Your task to perform on an android device: add a contact Image 0: 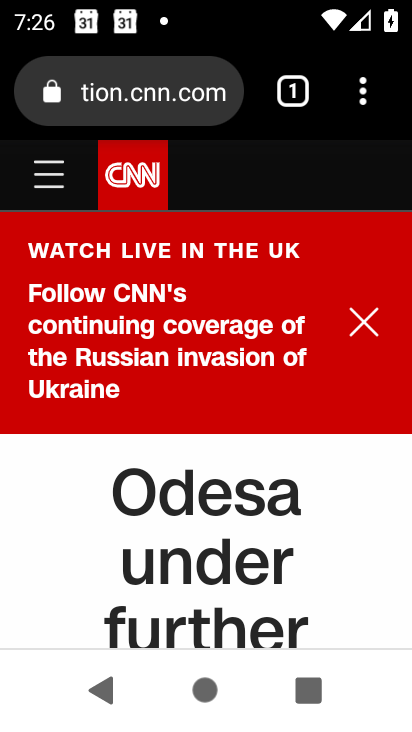
Step 0: press home button
Your task to perform on an android device: add a contact Image 1: 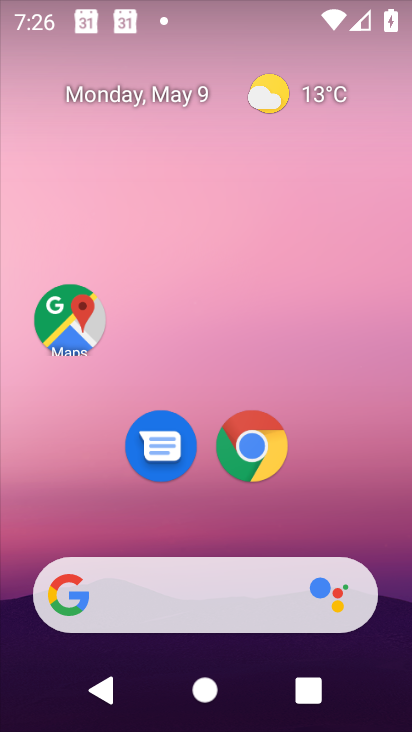
Step 1: drag from (247, 420) to (269, 137)
Your task to perform on an android device: add a contact Image 2: 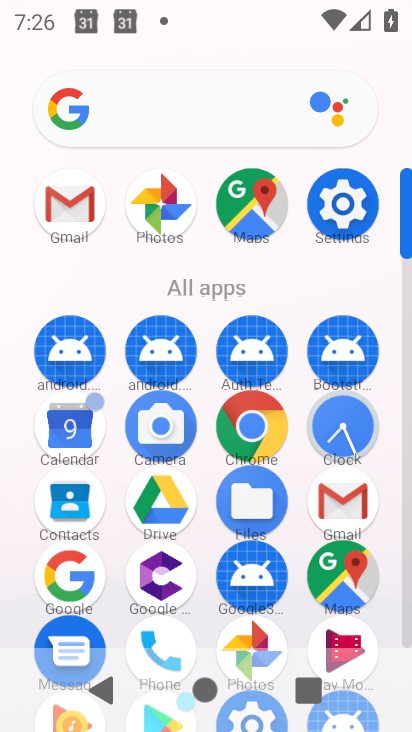
Step 2: click (150, 651)
Your task to perform on an android device: add a contact Image 3: 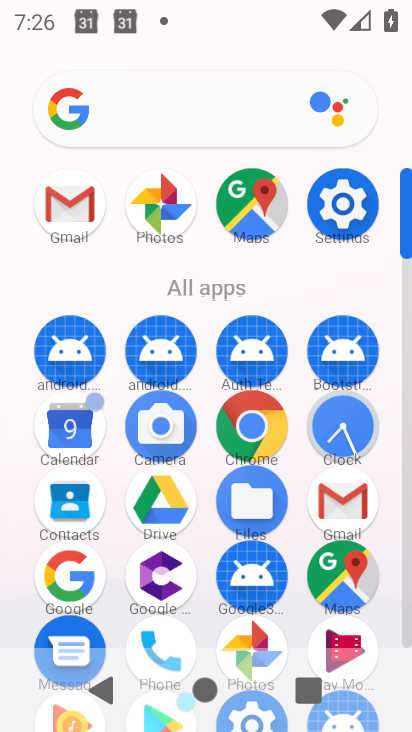
Step 3: click (65, 513)
Your task to perform on an android device: add a contact Image 4: 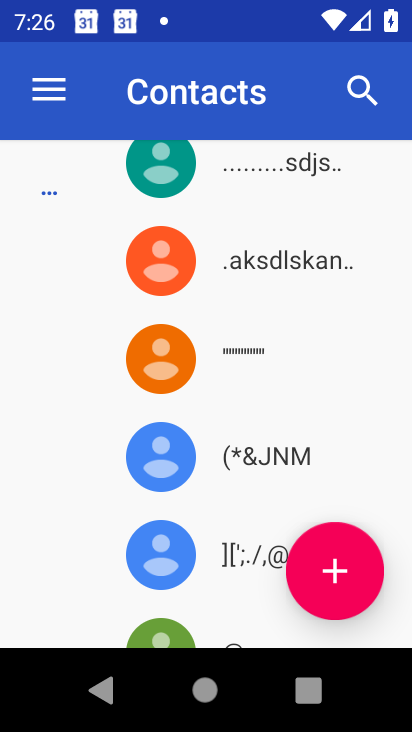
Step 4: click (344, 593)
Your task to perform on an android device: add a contact Image 5: 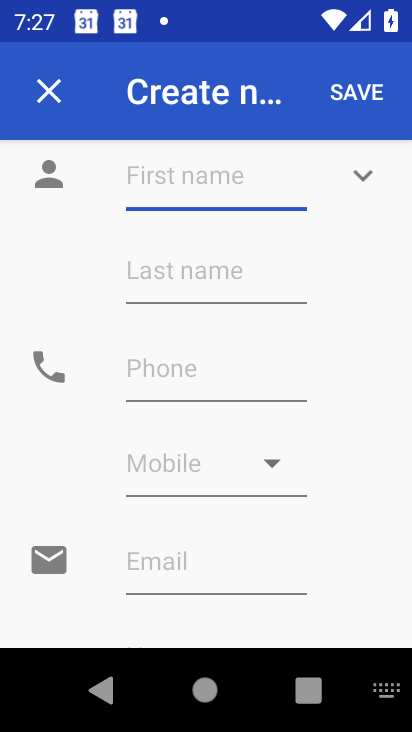
Step 5: type "contact 1"
Your task to perform on an android device: add a contact Image 6: 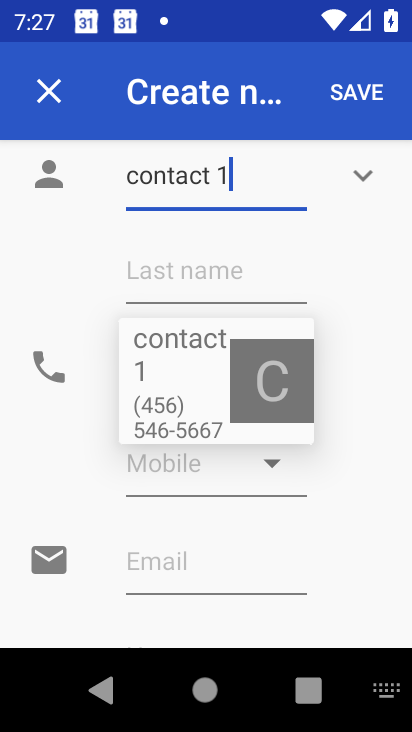
Step 6: type "2"
Your task to perform on an android device: add a contact Image 7: 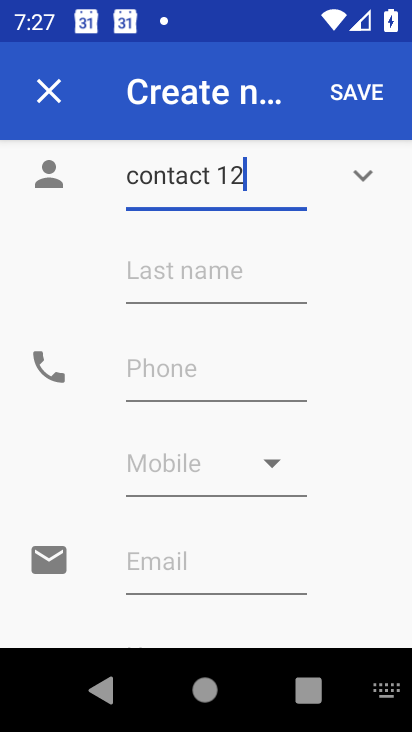
Step 7: click (363, 172)
Your task to perform on an android device: add a contact Image 8: 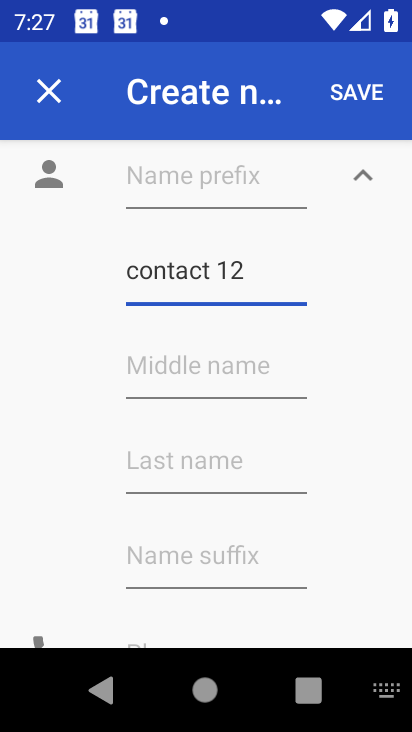
Step 8: click (265, 266)
Your task to perform on an android device: add a contact Image 9: 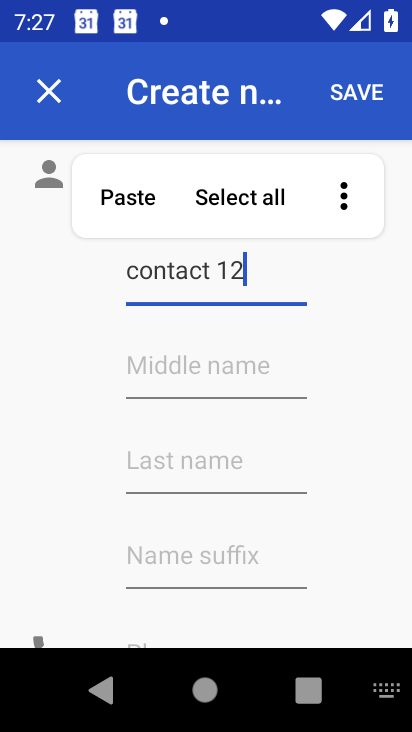
Step 9: click (54, 97)
Your task to perform on an android device: add a contact Image 10: 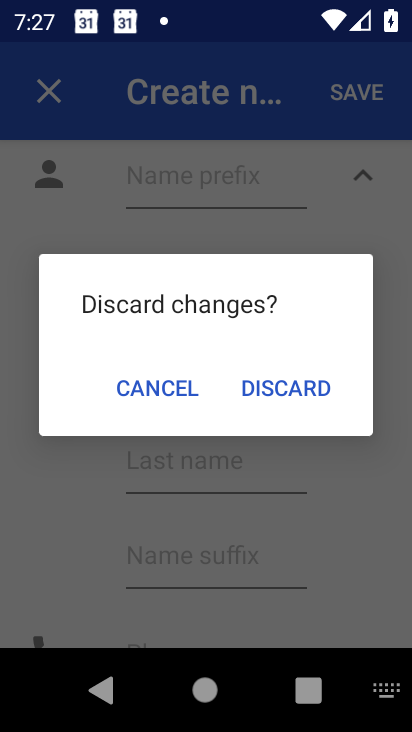
Step 10: click (288, 408)
Your task to perform on an android device: add a contact Image 11: 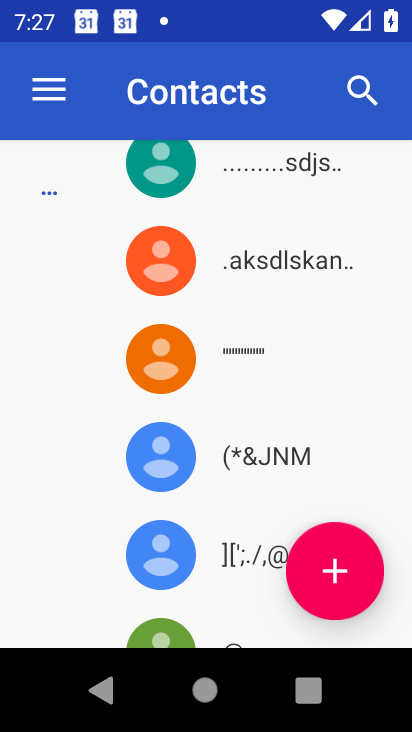
Step 11: click (326, 575)
Your task to perform on an android device: add a contact Image 12: 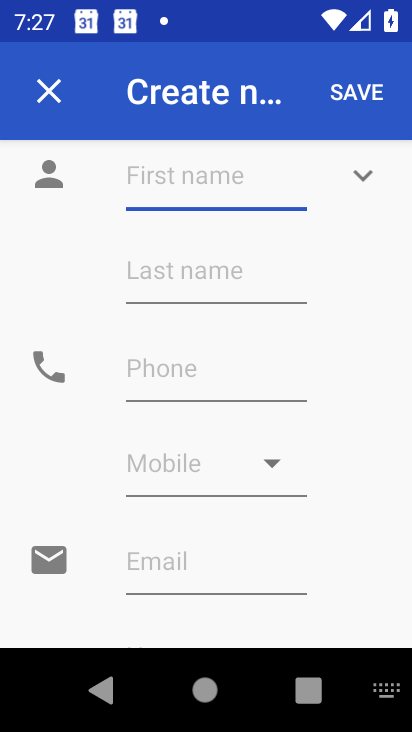
Step 12: type "contact3"
Your task to perform on an android device: add a contact Image 13: 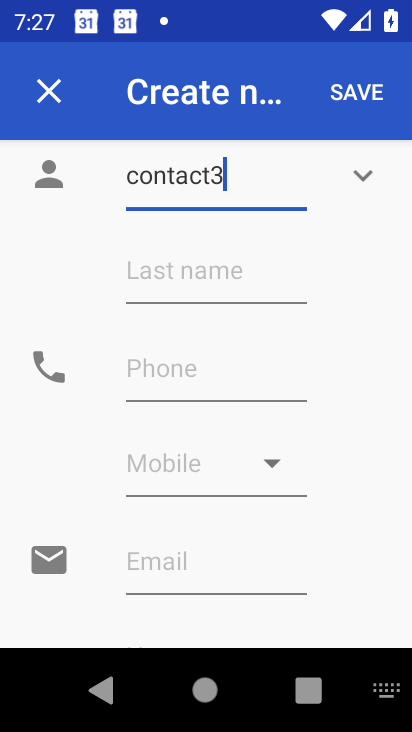
Step 13: click (170, 380)
Your task to perform on an android device: add a contact Image 14: 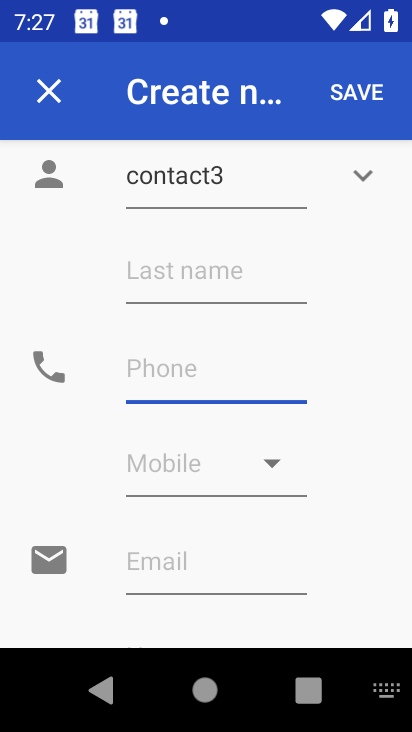
Step 14: type "3463464363"
Your task to perform on an android device: add a contact Image 15: 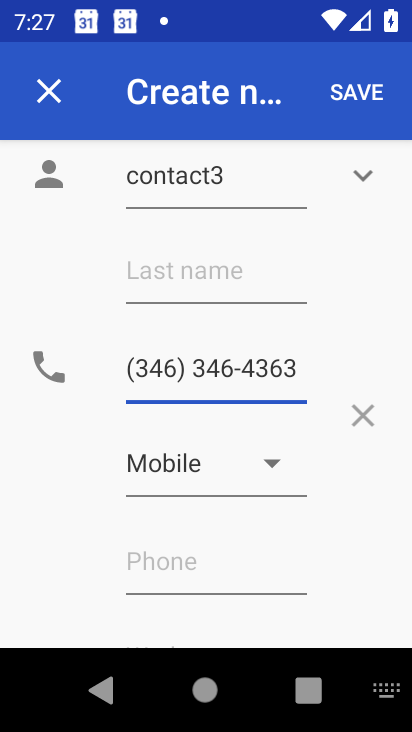
Step 15: click (387, 98)
Your task to perform on an android device: add a contact Image 16: 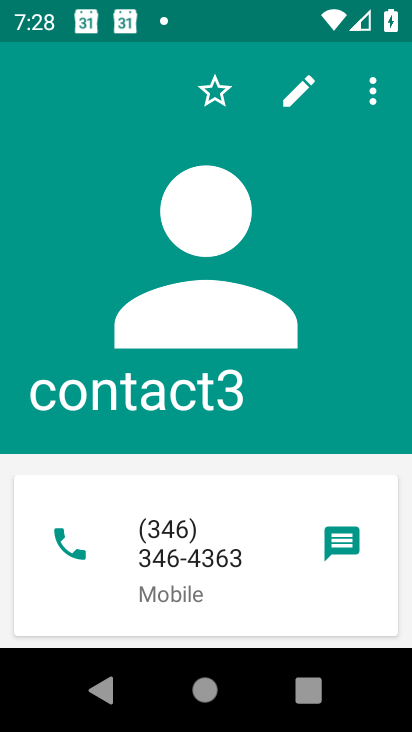
Step 16: task complete